Your task to perform on an android device: Open display settings Image 0: 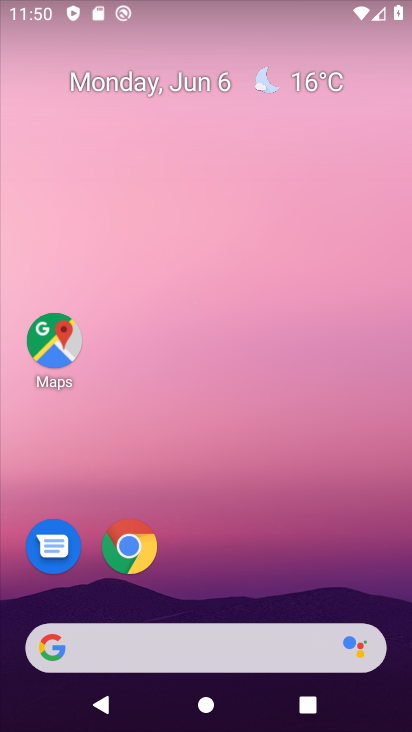
Step 0: click (298, 34)
Your task to perform on an android device: Open display settings Image 1: 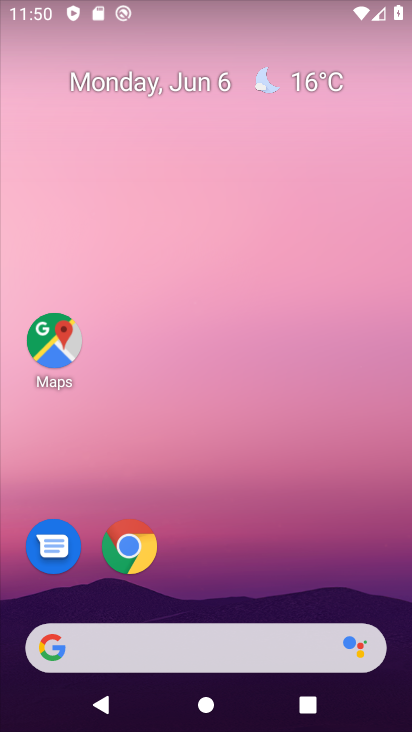
Step 1: drag from (169, 595) to (176, 93)
Your task to perform on an android device: Open display settings Image 2: 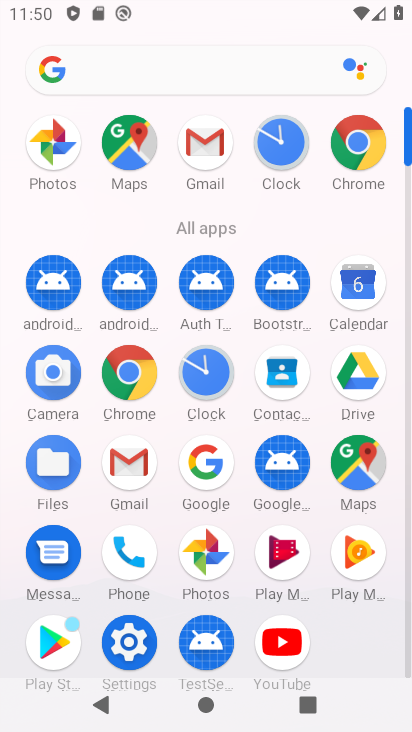
Step 2: click (128, 652)
Your task to perform on an android device: Open display settings Image 3: 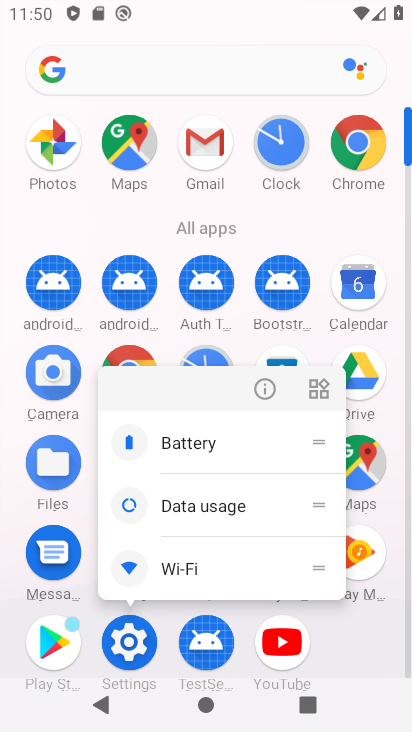
Step 3: click (258, 384)
Your task to perform on an android device: Open display settings Image 4: 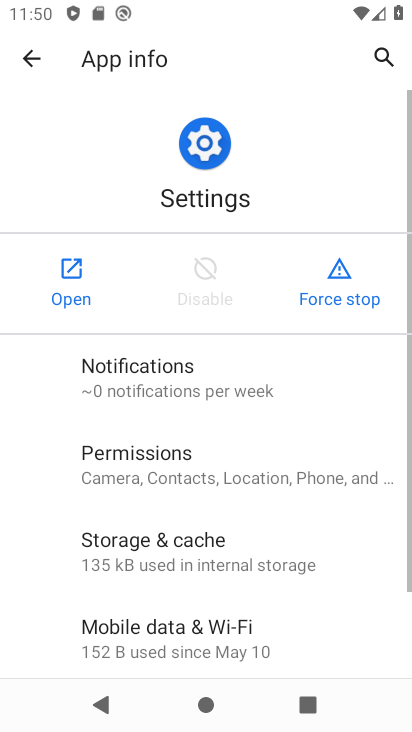
Step 4: click (90, 270)
Your task to perform on an android device: Open display settings Image 5: 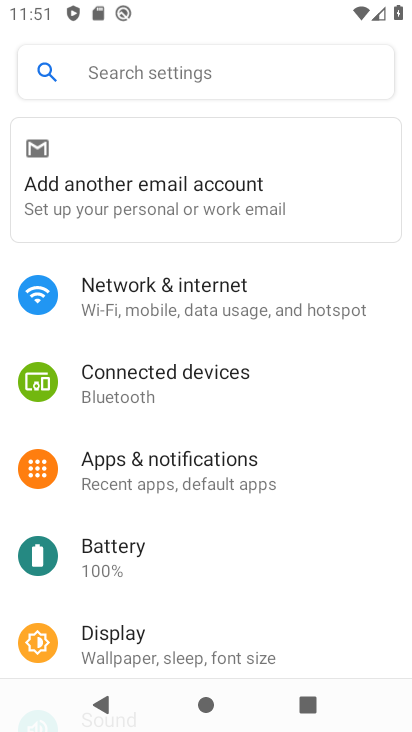
Step 5: drag from (232, 617) to (293, 130)
Your task to perform on an android device: Open display settings Image 6: 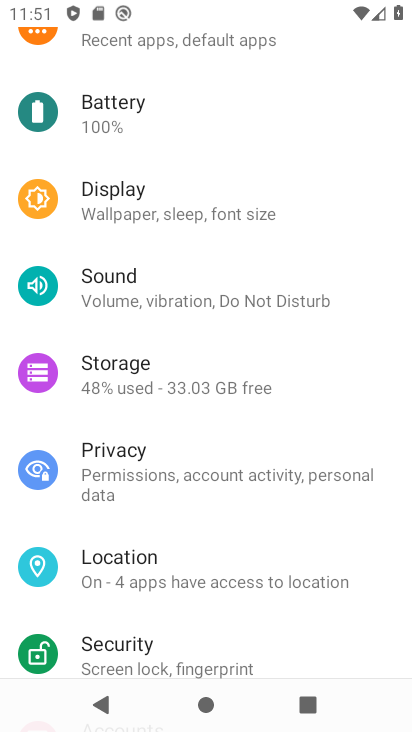
Step 6: click (186, 213)
Your task to perform on an android device: Open display settings Image 7: 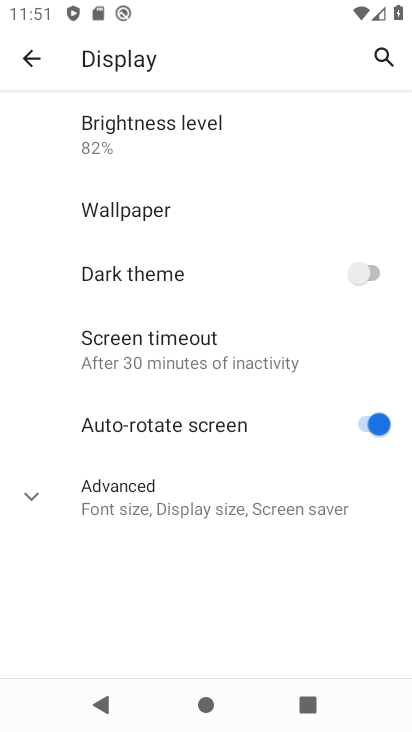
Step 7: task complete